Your task to perform on an android device: Open Youtube and go to the subscriptions tab Image 0: 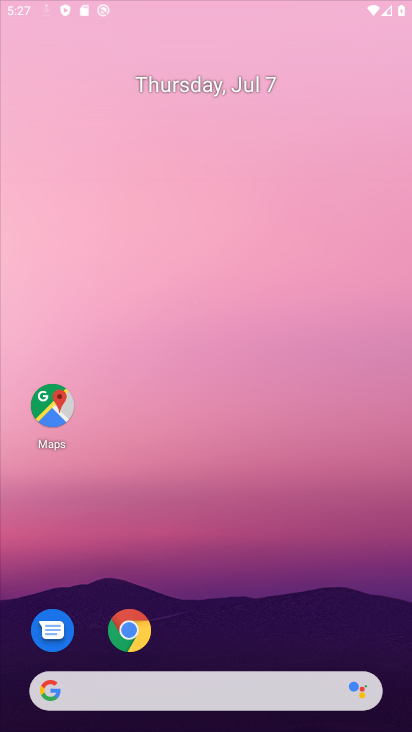
Step 0: press home button
Your task to perform on an android device: Open Youtube and go to the subscriptions tab Image 1: 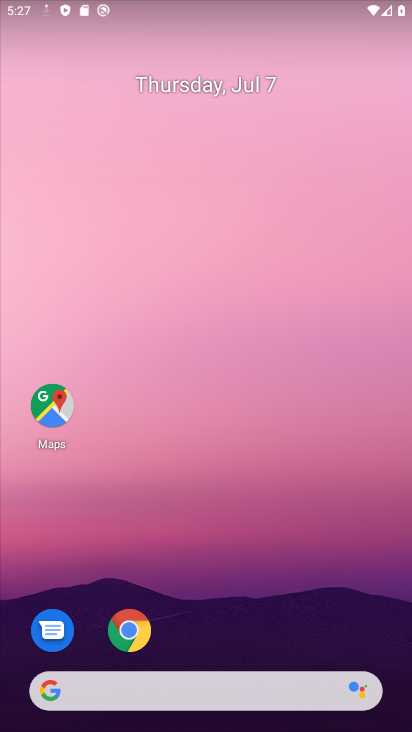
Step 1: drag from (307, 618) to (275, 129)
Your task to perform on an android device: Open Youtube and go to the subscriptions tab Image 2: 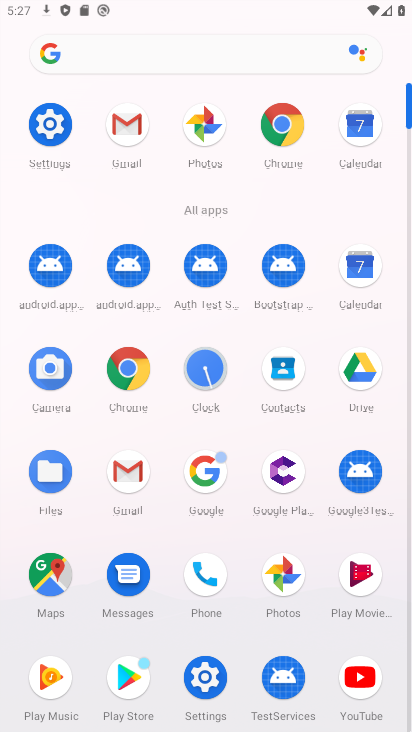
Step 2: click (344, 684)
Your task to perform on an android device: Open Youtube and go to the subscriptions tab Image 3: 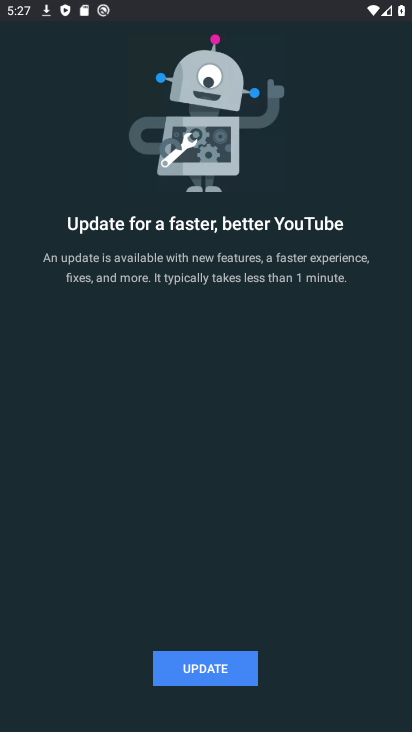
Step 3: click (226, 674)
Your task to perform on an android device: Open Youtube and go to the subscriptions tab Image 4: 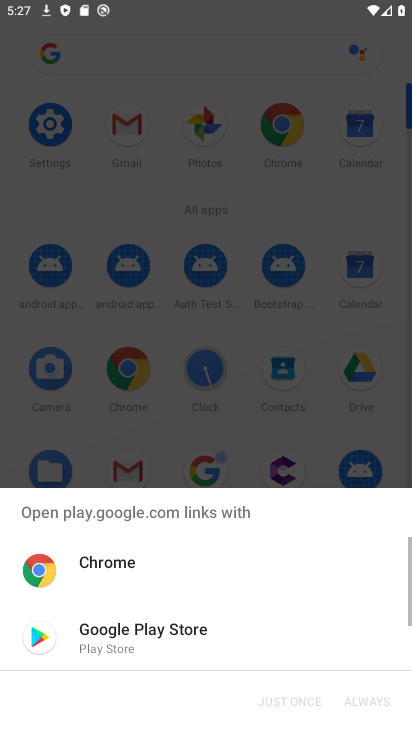
Step 4: click (113, 624)
Your task to perform on an android device: Open Youtube and go to the subscriptions tab Image 5: 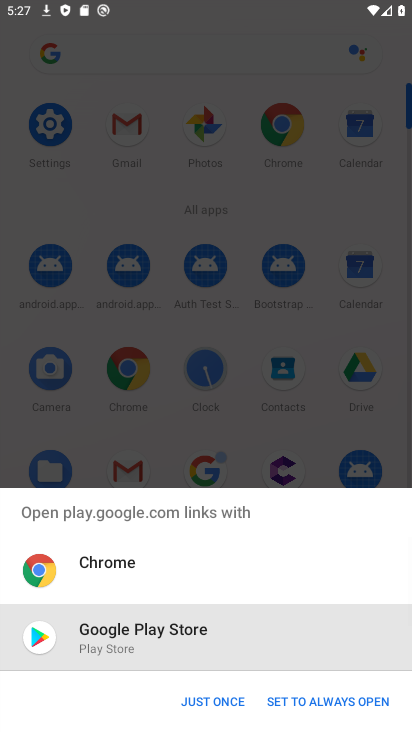
Step 5: click (200, 711)
Your task to perform on an android device: Open Youtube and go to the subscriptions tab Image 6: 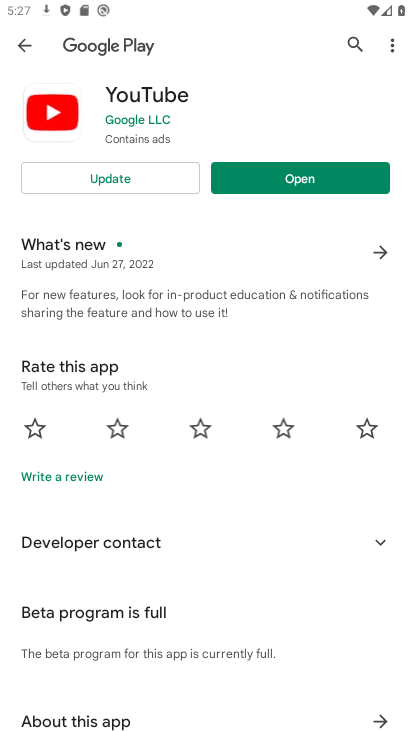
Step 6: click (156, 170)
Your task to perform on an android device: Open Youtube and go to the subscriptions tab Image 7: 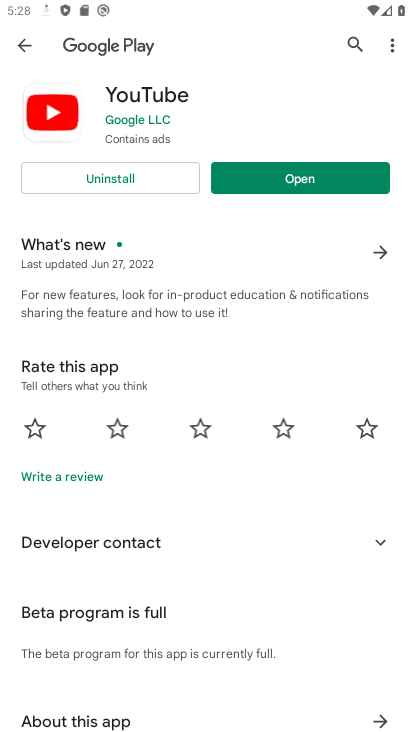
Step 7: click (332, 181)
Your task to perform on an android device: Open Youtube and go to the subscriptions tab Image 8: 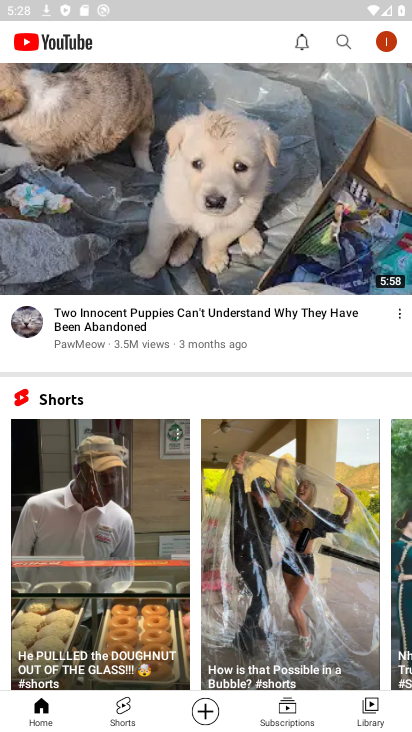
Step 8: click (288, 709)
Your task to perform on an android device: Open Youtube and go to the subscriptions tab Image 9: 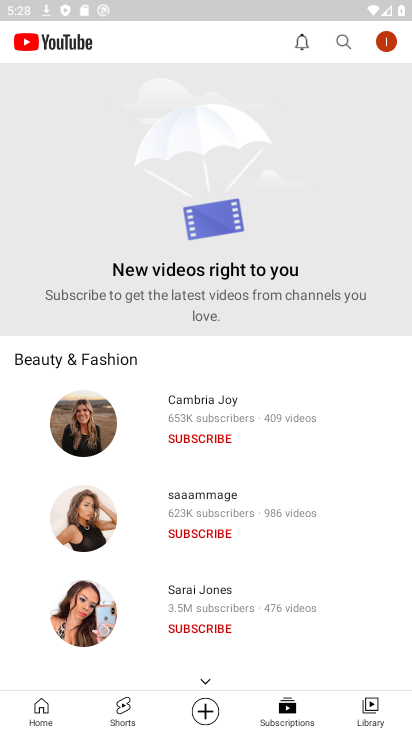
Step 9: task complete